Your task to perform on an android device: Open internet settings Image 0: 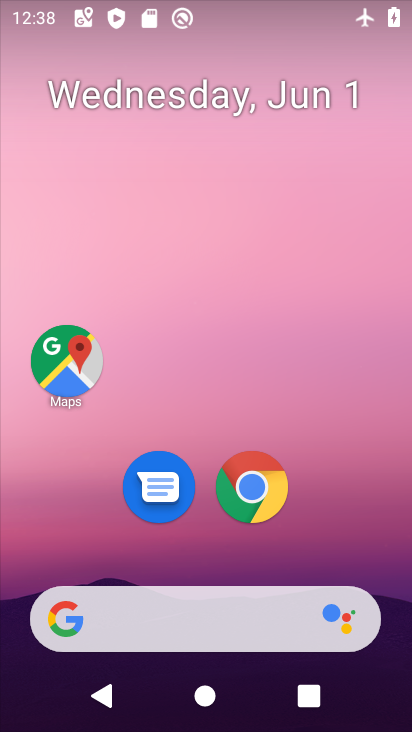
Step 0: drag from (280, 558) to (309, 266)
Your task to perform on an android device: Open internet settings Image 1: 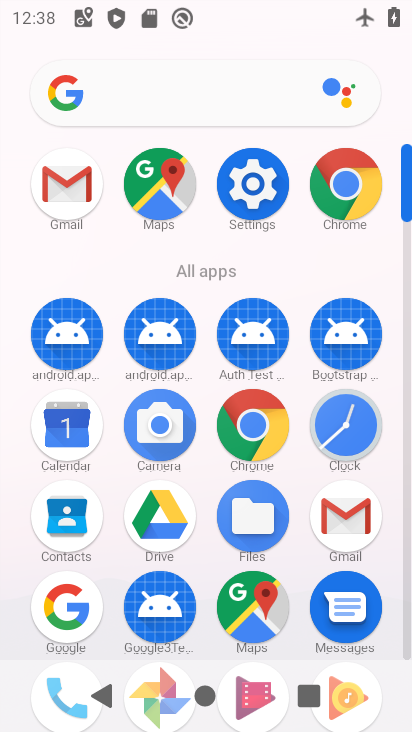
Step 1: click (240, 182)
Your task to perform on an android device: Open internet settings Image 2: 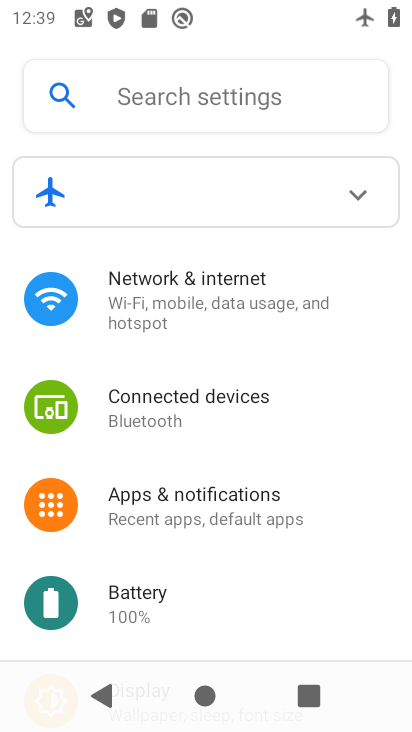
Step 2: click (186, 292)
Your task to perform on an android device: Open internet settings Image 3: 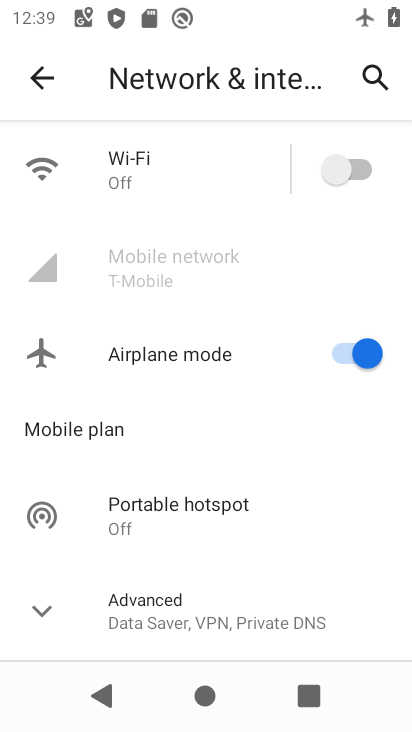
Step 3: task complete